Your task to perform on an android device: Is it going to rain this weekend? Image 0: 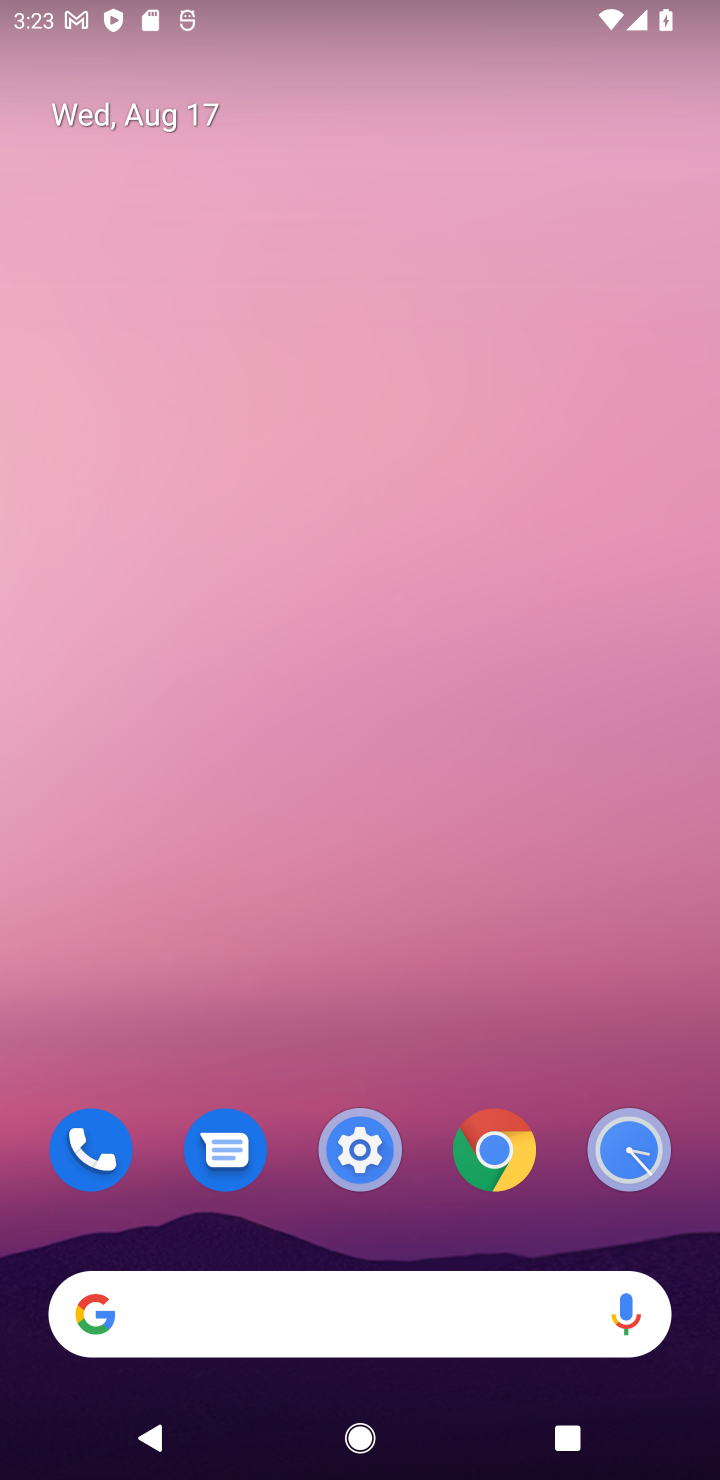
Step 0: drag from (492, 308) to (392, 32)
Your task to perform on an android device: Is it going to rain this weekend? Image 1: 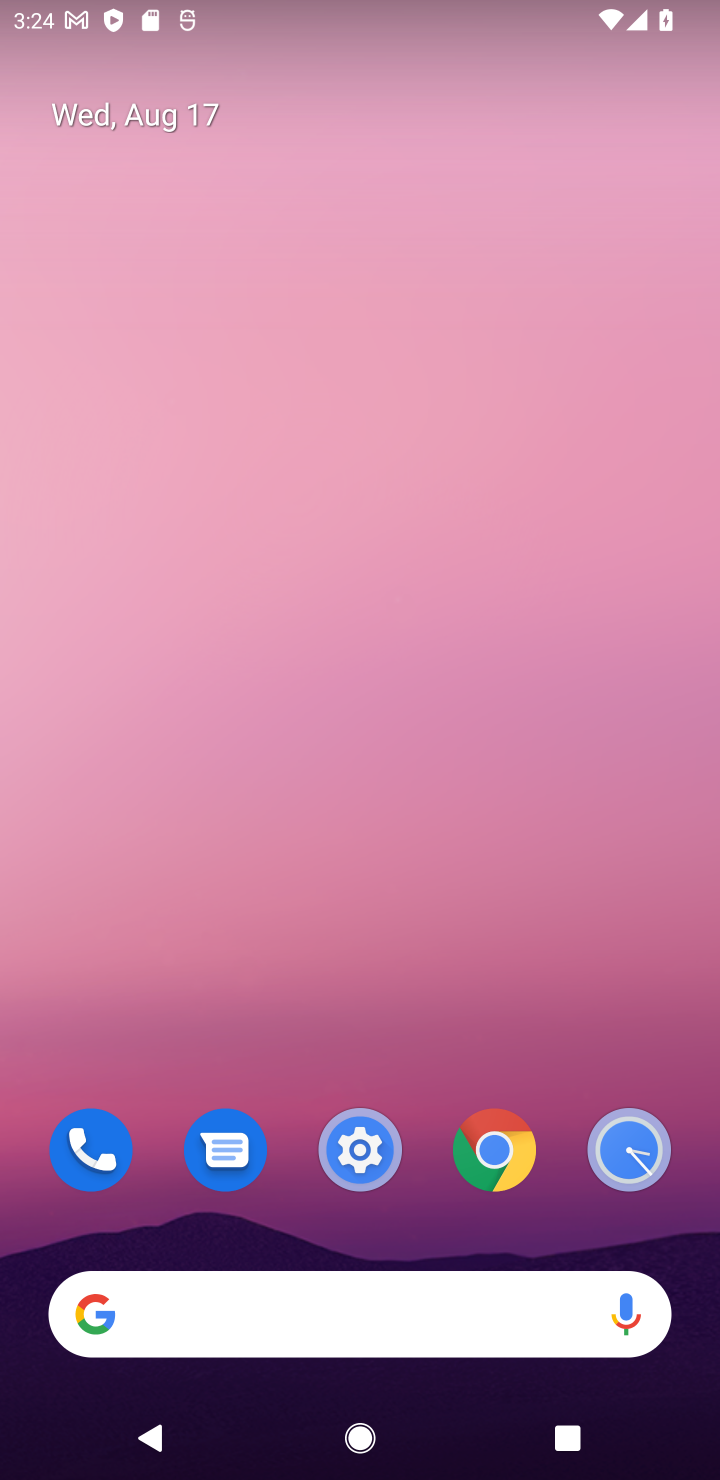
Step 1: drag from (596, 1206) to (440, 69)
Your task to perform on an android device: Is it going to rain this weekend? Image 2: 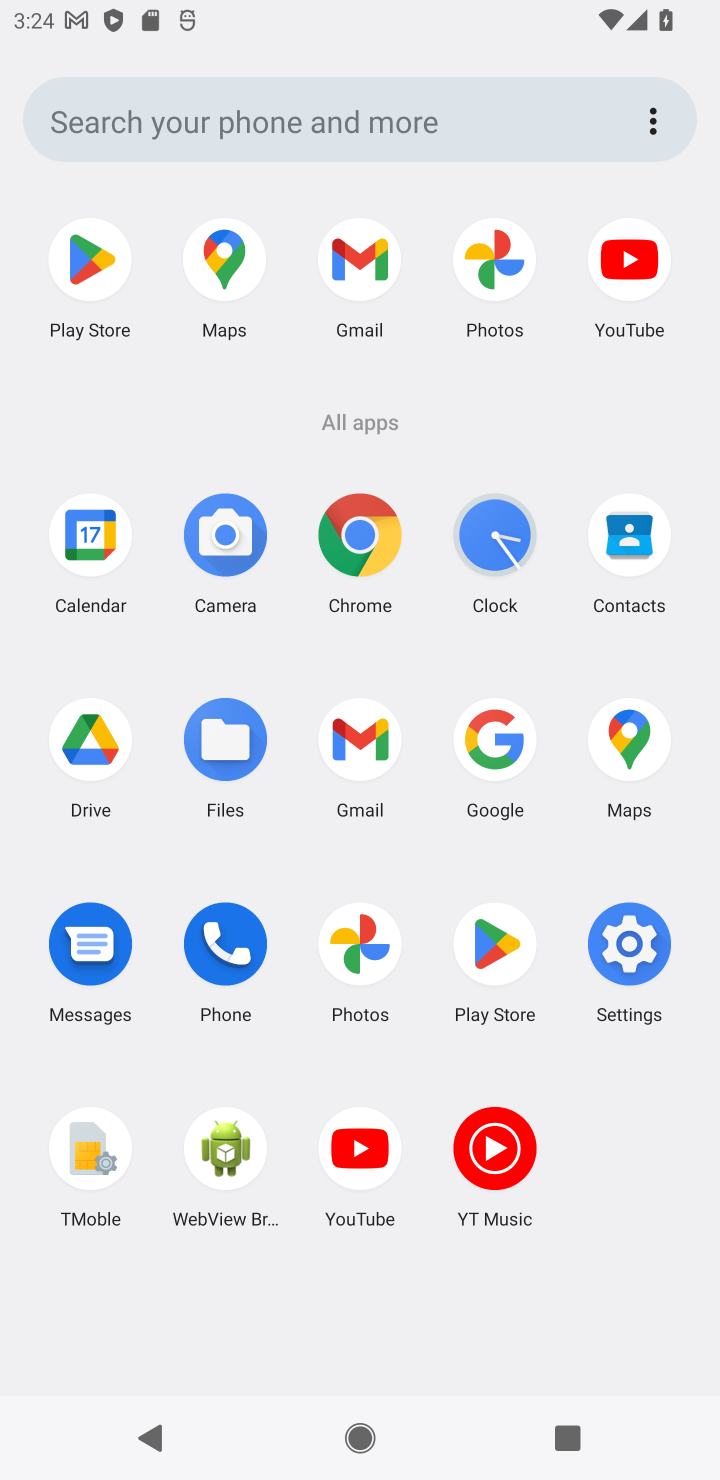
Step 2: click (505, 768)
Your task to perform on an android device: Is it going to rain this weekend? Image 3: 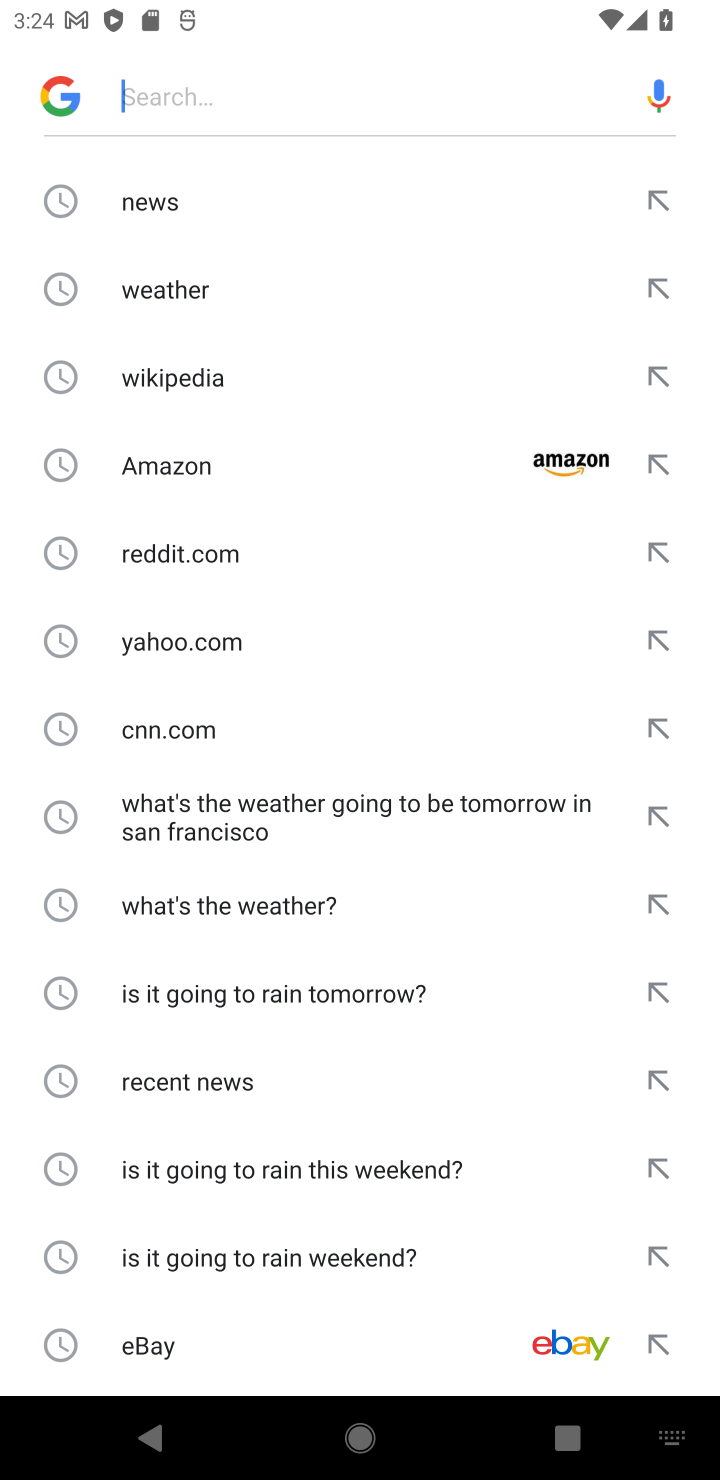
Step 3: click (321, 1173)
Your task to perform on an android device: Is it going to rain this weekend? Image 4: 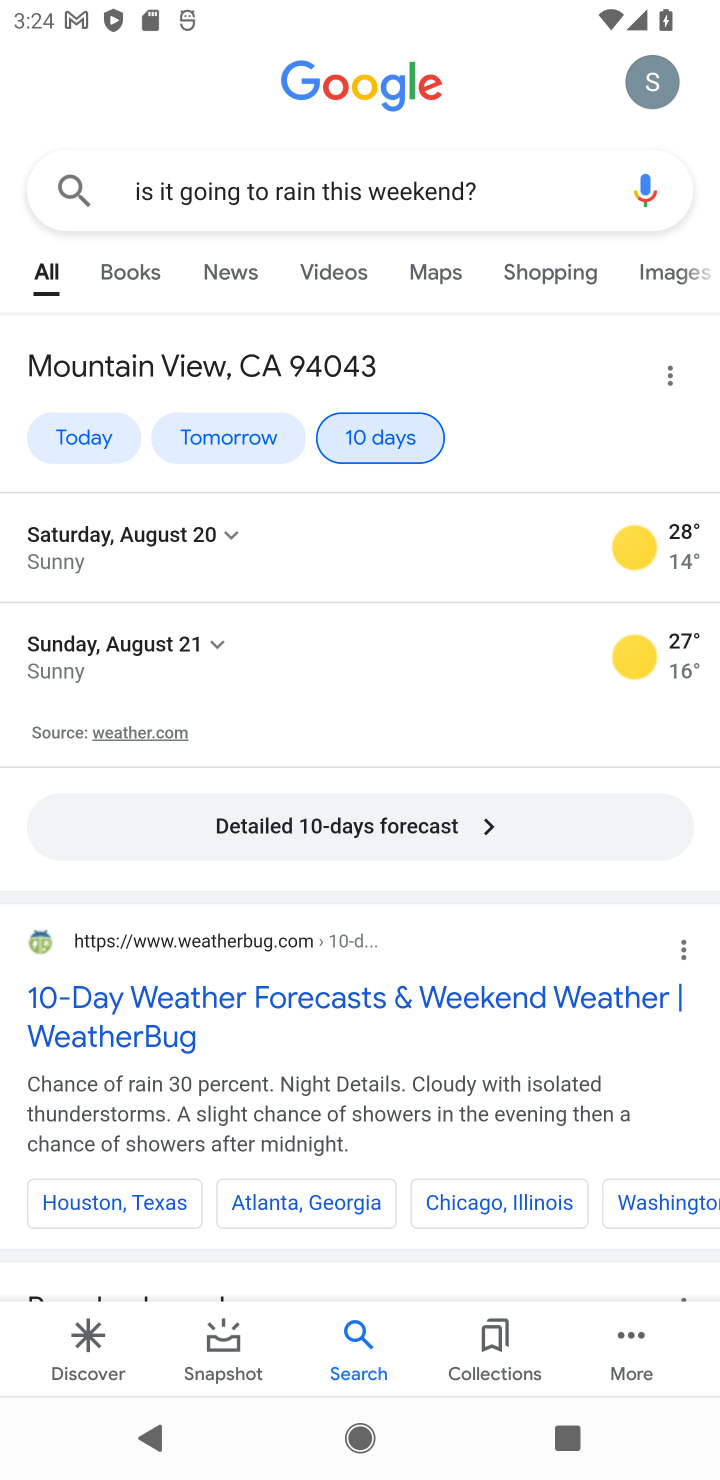
Step 4: task complete